Your task to perform on an android device: show emergency info Image 0: 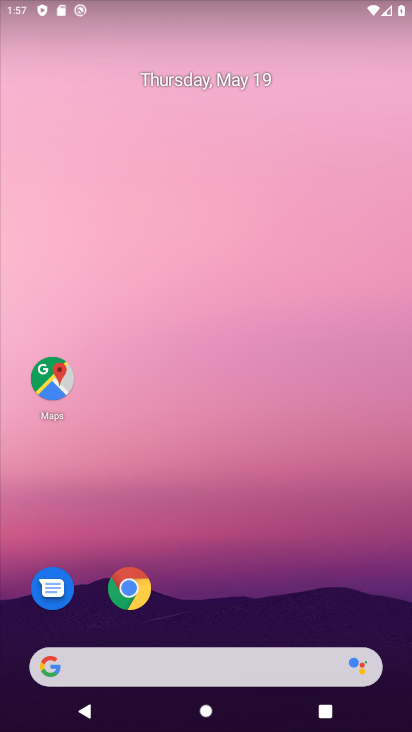
Step 0: drag from (225, 550) to (260, 75)
Your task to perform on an android device: show emergency info Image 1: 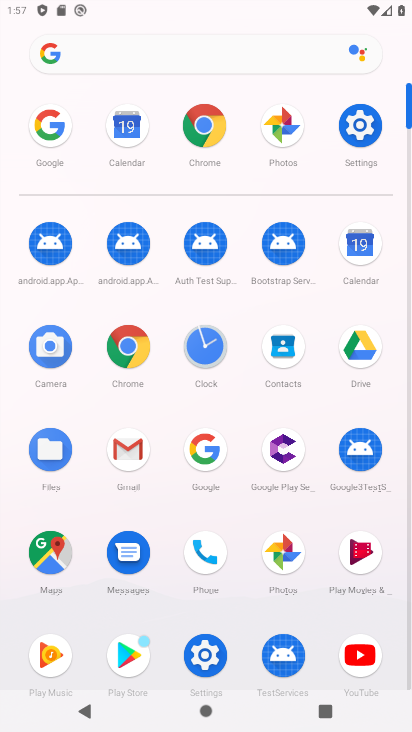
Step 1: click (362, 127)
Your task to perform on an android device: show emergency info Image 2: 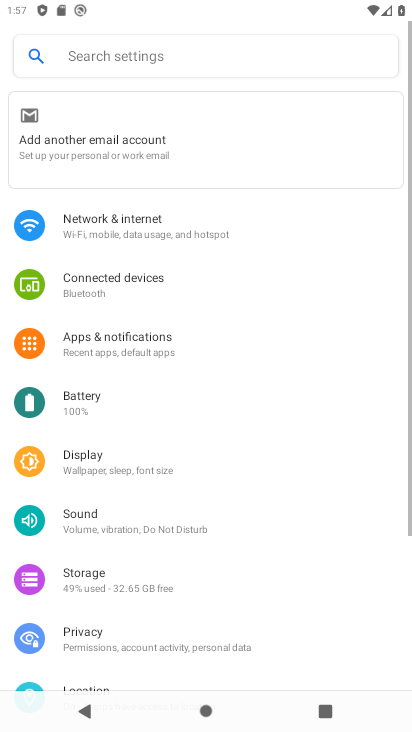
Step 2: drag from (207, 629) to (256, 19)
Your task to perform on an android device: show emergency info Image 3: 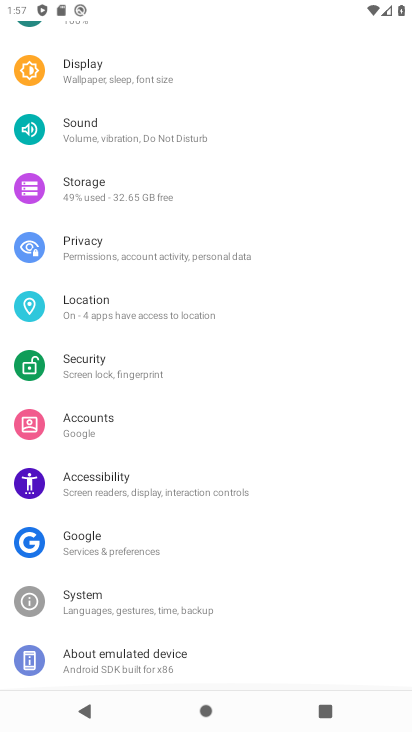
Step 3: click (128, 661)
Your task to perform on an android device: show emergency info Image 4: 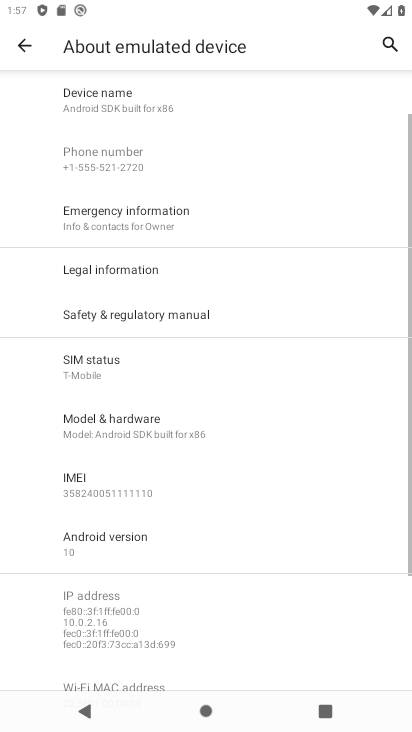
Step 4: click (135, 211)
Your task to perform on an android device: show emergency info Image 5: 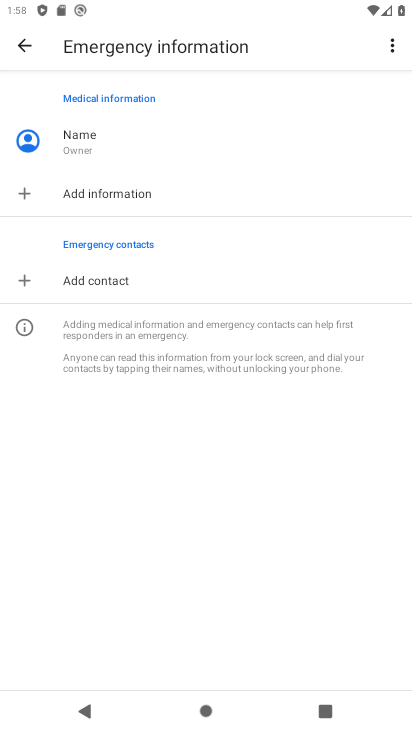
Step 5: task complete